Your task to perform on an android device: change notification settings in the gmail app Image 0: 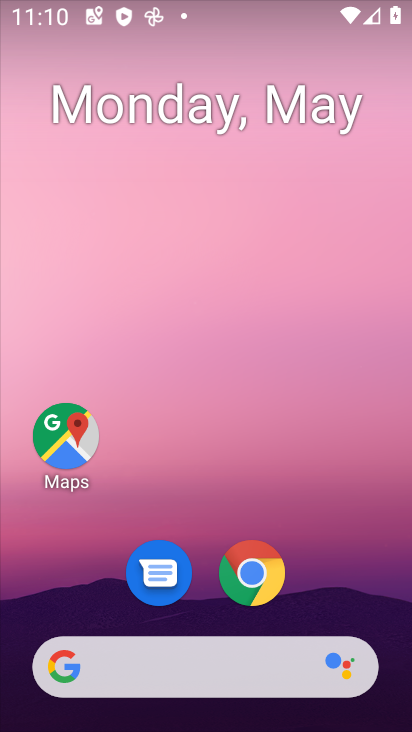
Step 0: drag from (374, 573) to (264, 48)
Your task to perform on an android device: change notification settings in the gmail app Image 1: 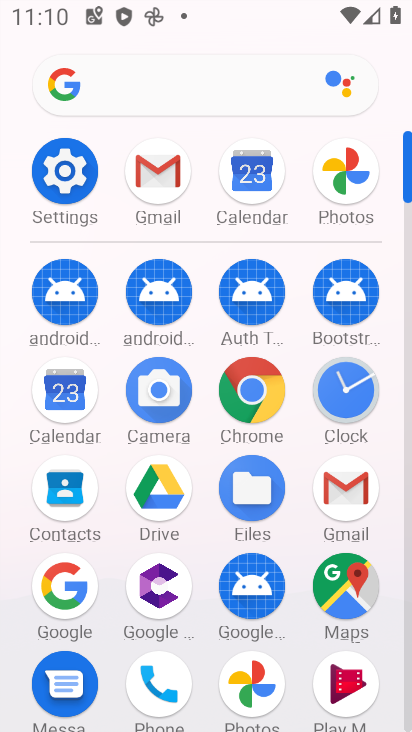
Step 1: click (336, 481)
Your task to perform on an android device: change notification settings in the gmail app Image 2: 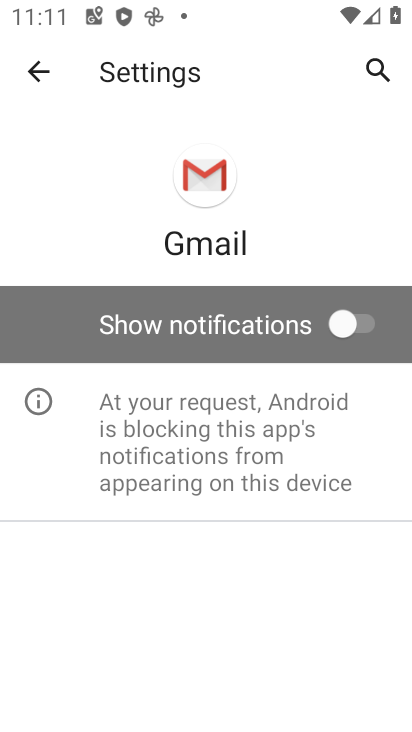
Step 2: task complete